Your task to perform on an android device: check out phone information Image 0: 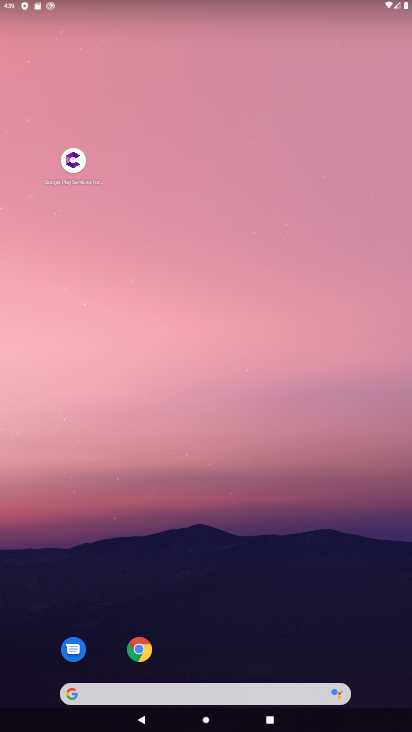
Step 0: drag from (270, 632) to (250, 59)
Your task to perform on an android device: check out phone information Image 1: 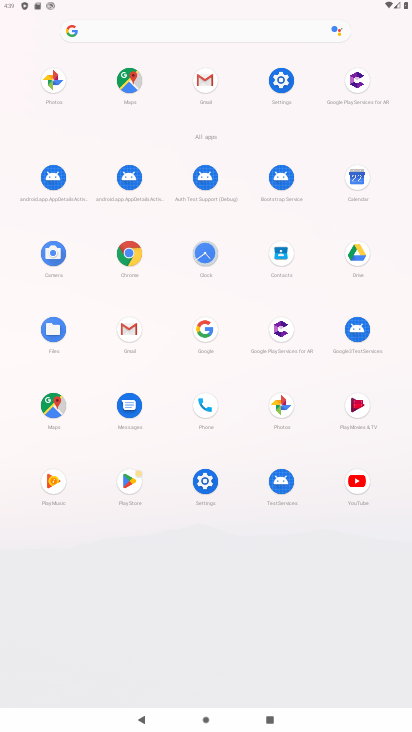
Step 1: click (286, 96)
Your task to perform on an android device: check out phone information Image 2: 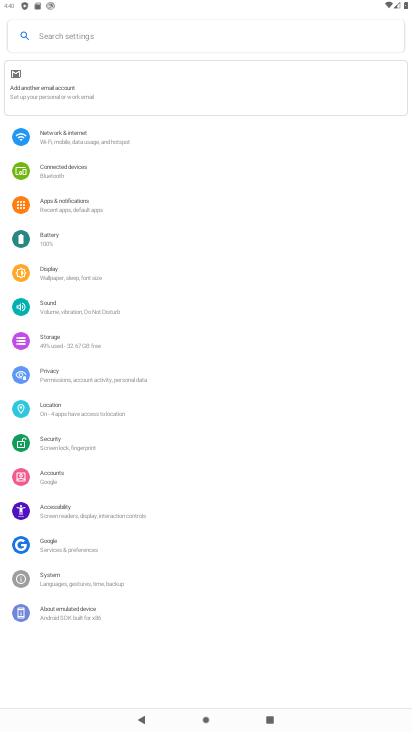
Step 2: click (145, 604)
Your task to perform on an android device: check out phone information Image 3: 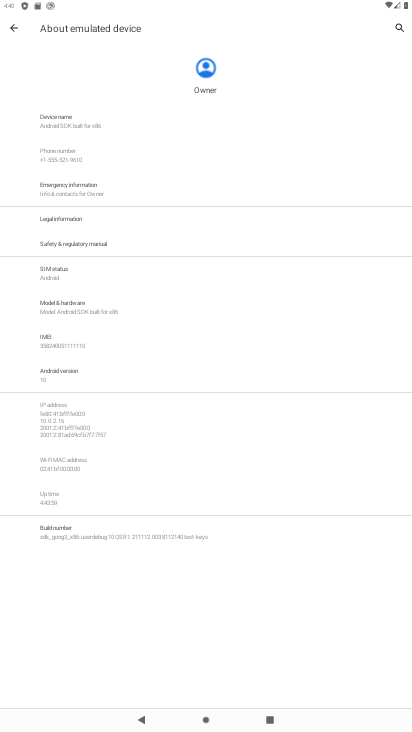
Step 3: task complete